Your task to perform on an android device: turn off wifi Image 0: 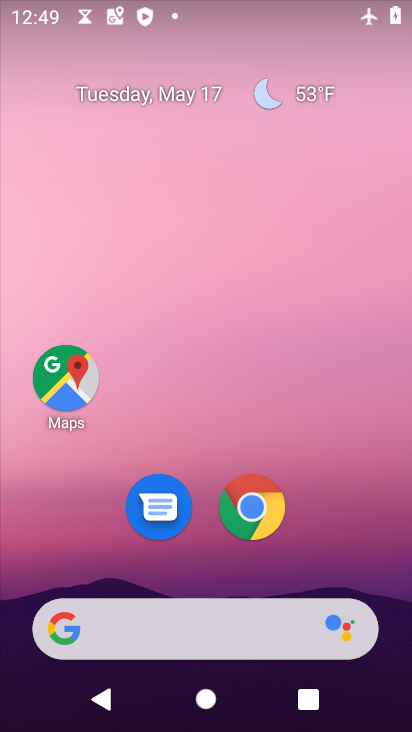
Step 0: drag from (207, 587) to (221, 68)
Your task to perform on an android device: turn off wifi Image 1: 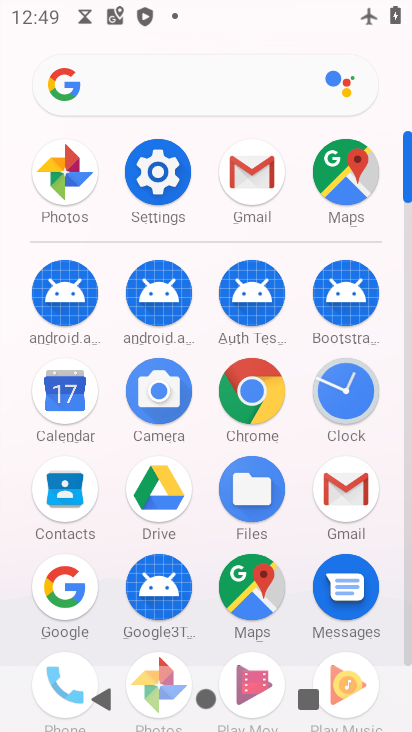
Step 1: click (161, 161)
Your task to perform on an android device: turn off wifi Image 2: 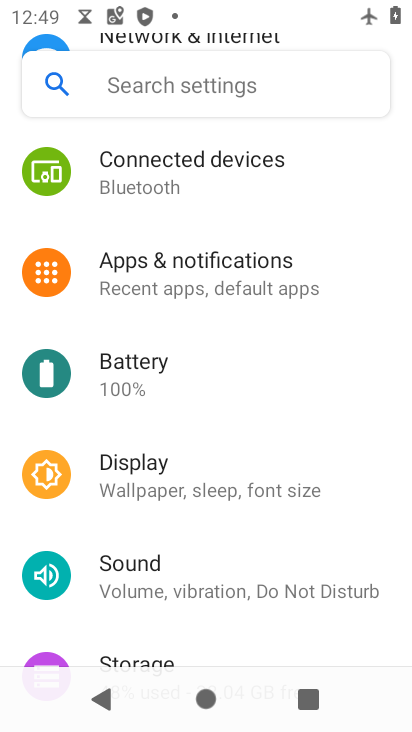
Step 2: drag from (215, 226) to (283, 618)
Your task to perform on an android device: turn off wifi Image 3: 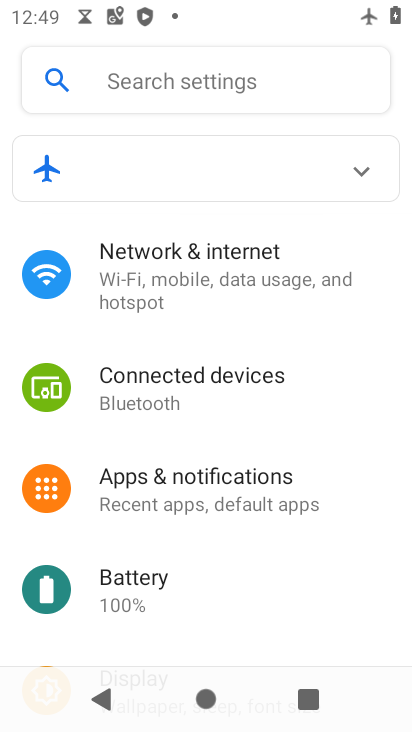
Step 3: click (181, 302)
Your task to perform on an android device: turn off wifi Image 4: 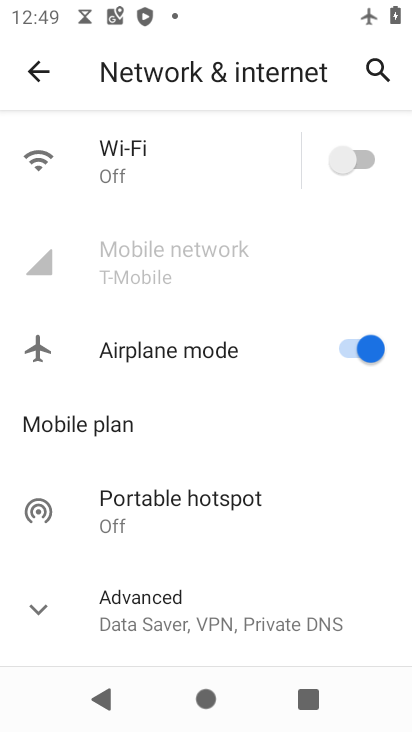
Step 4: task complete